Your task to perform on an android device: turn on bluetooth scan Image 0: 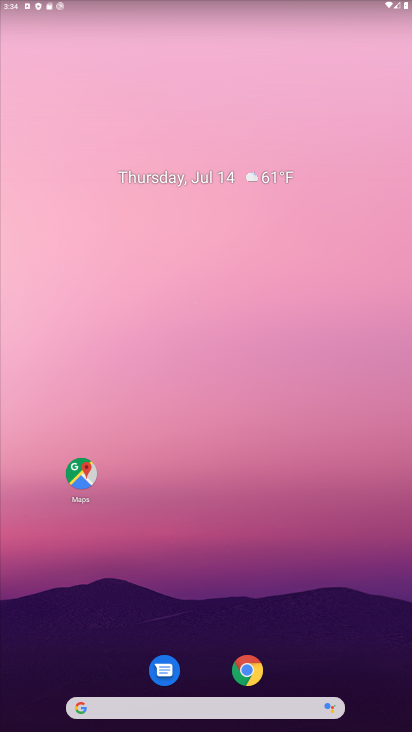
Step 0: drag from (247, 8) to (192, 638)
Your task to perform on an android device: turn on bluetooth scan Image 1: 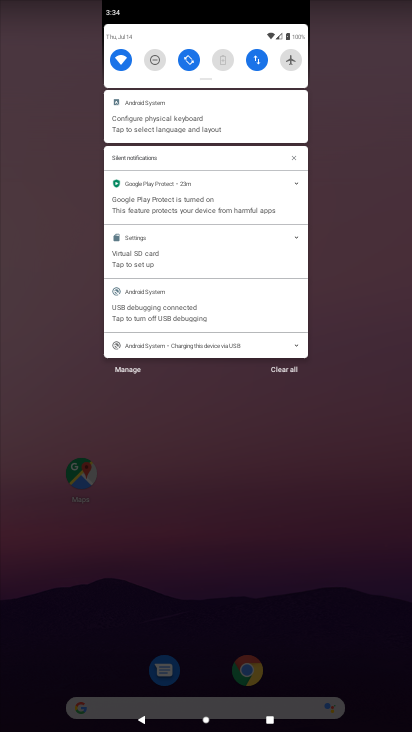
Step 1: drag from (205, 28) to (238, 685)
Your task to perform on an android device: turn on bluetooth scan Image 2: 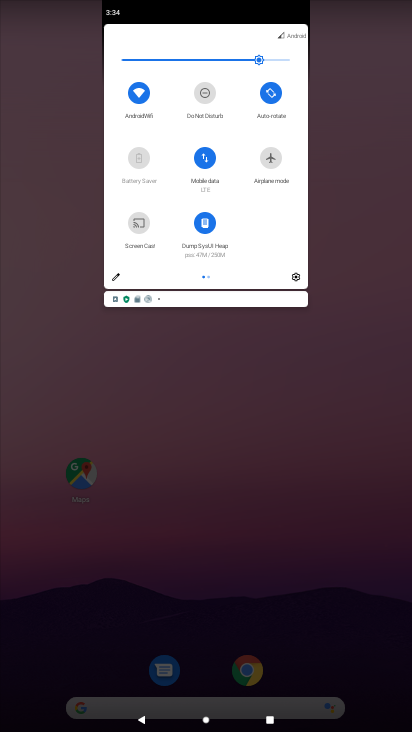
Step 2: click (293, 270)
Your task to perform on an android device: turn on bluetooth scan Image 3: 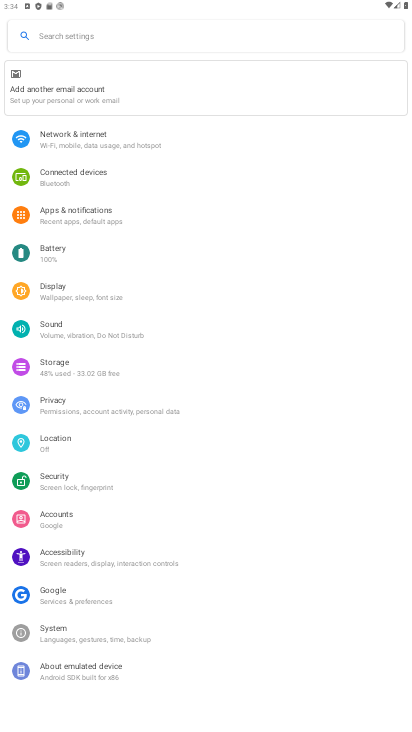
Step 3: click (94, 453)
Your task to perform on an android device: turn on bluetooth scan Image 4: 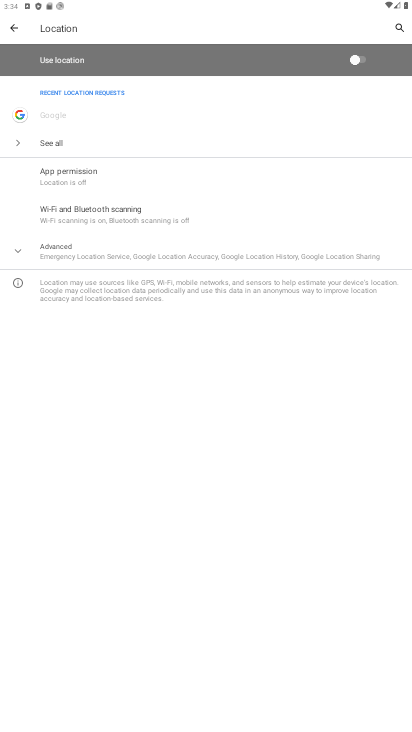
Step 4: click (111, 206)
Your task to perform on an android device: turn on bluetooth scan Image 5: 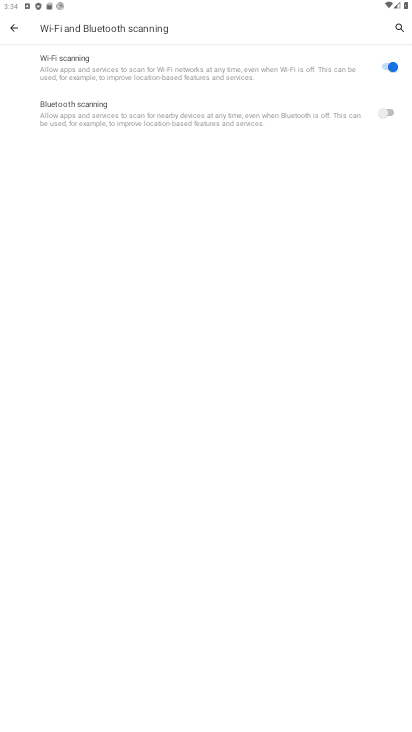
Step 5: click (390, 112)
Your task to perform on an android device: turn on bluetooth scan Image 6: 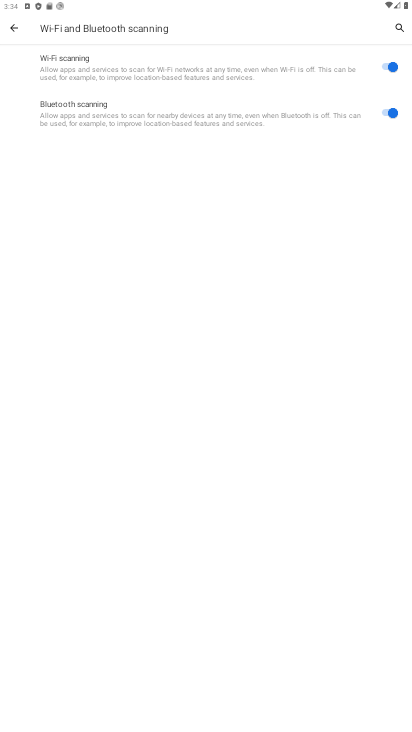
Step 6: task complete